Your task to perform on an android device: Turn on the flashlight Image 0: 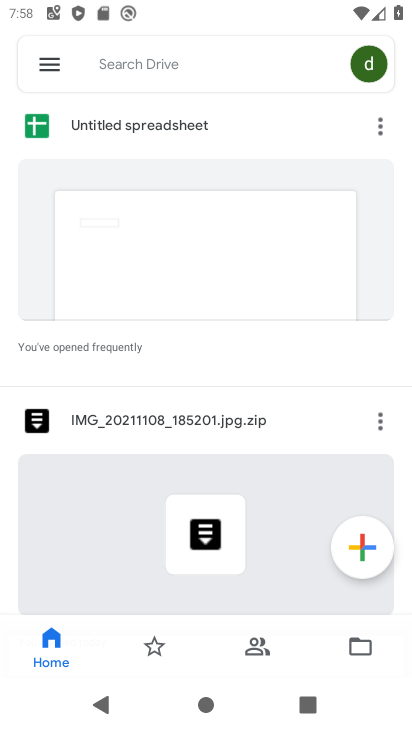
Step 0: press home button
Your task to perform on an android device: Turn on the flashlight Image 1: 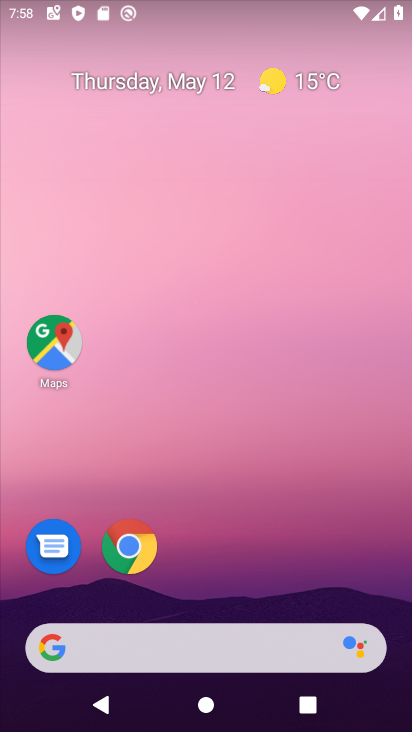
Step 1: task complete